Your task to perform on an android device: open app "Grab" (install if not already installed) and enter user name: "interspersion@gmail.com" and password: "aristocrats" Image 0: 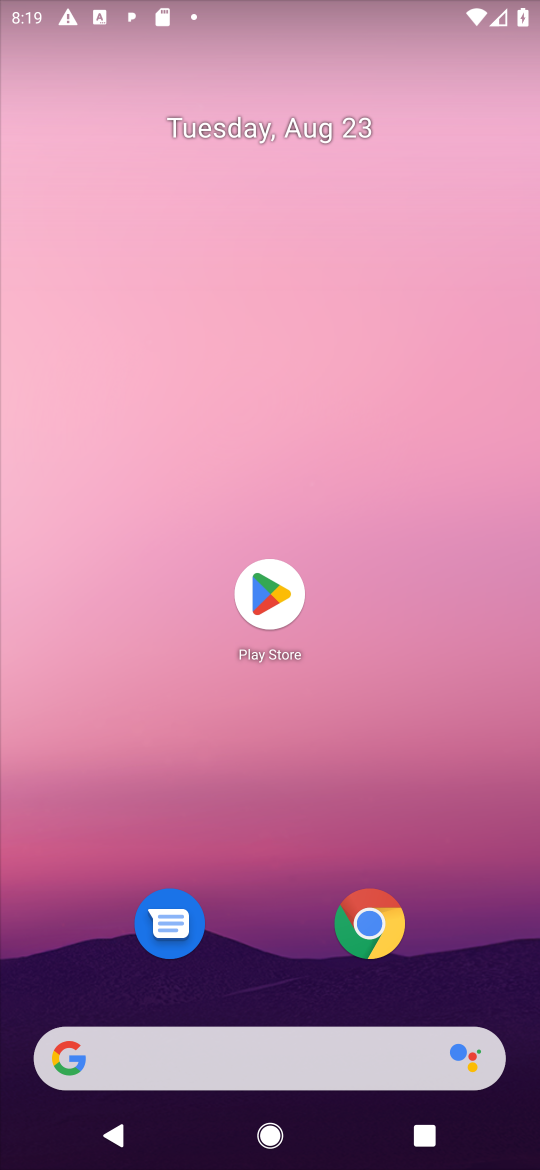
Step 0: click (265, 586)
Your task to perform on an android device: open app "Grab" (install if not already installed) and enter user name: "interspersion@gmail.com" and password: "aristocrats" Image 1: 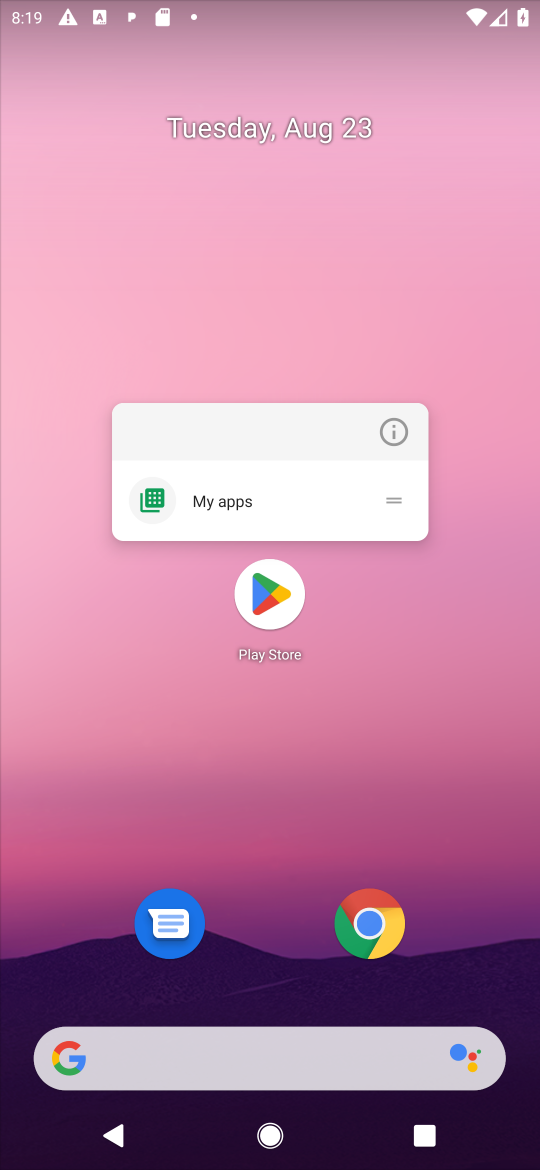
Step 1: click (260, 594)
Your task to perform on an android device: open app "Grab" (install if not already installed) and enter user name: "interspersion@gmail.com" and password: "aristocrats" Image 2: 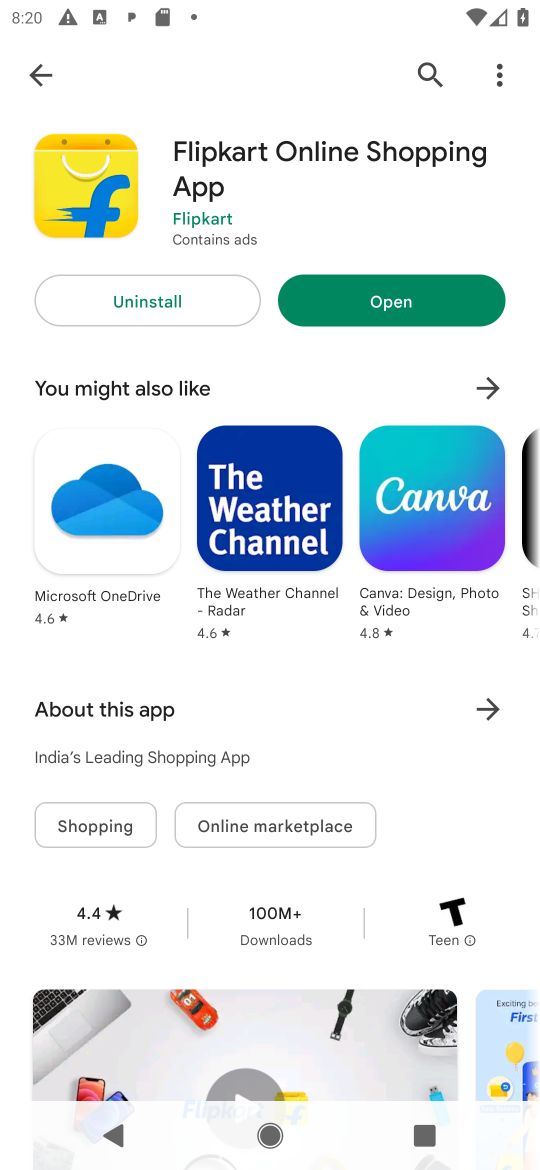
Step 2: click (429, 70)
Your task to perform on an android device: open app "Grab" (install if not already installed) and enter user name: "interspersion@gmail.com" and password: "aristocrats" Image 3: 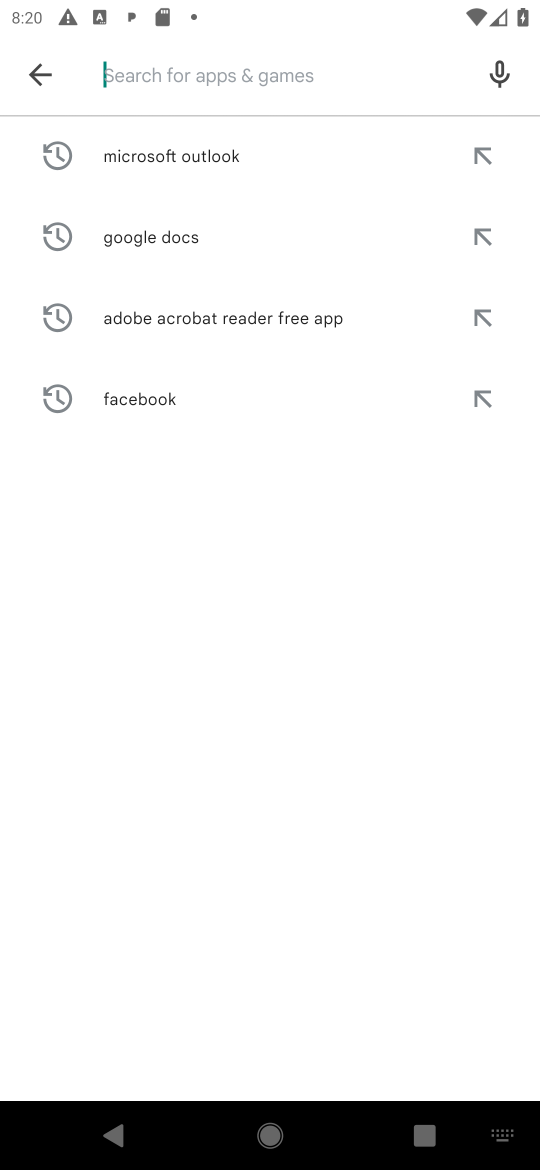
Step 3: type "Grab"
Your task to perform on an android device: open app "Grab" (install if not already installed) and enter user name: "interspersion@gmail.com" and password: "aristocrats" Image 4: 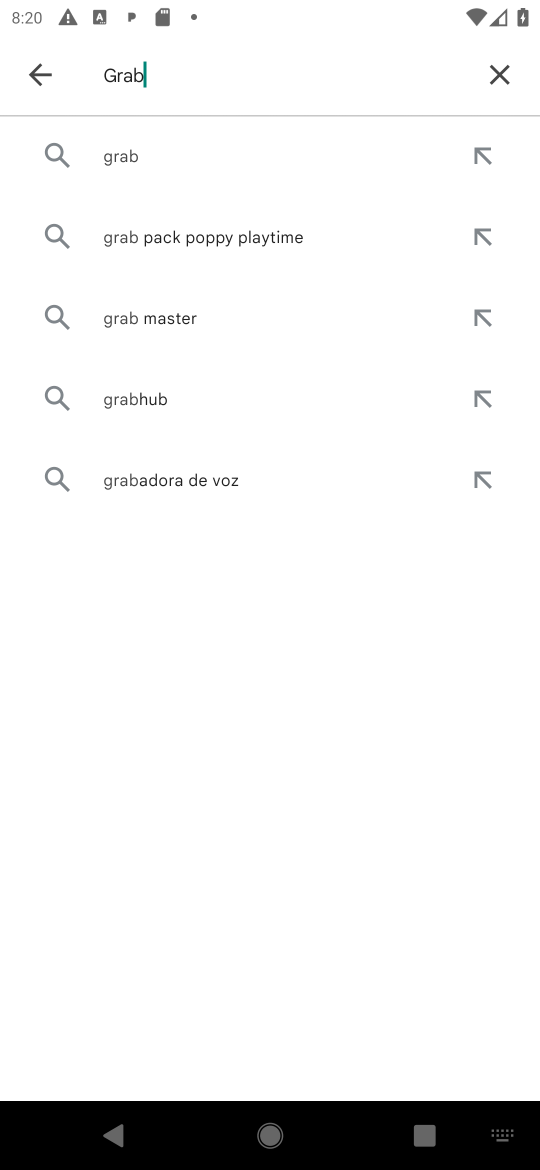
Step 4: click (128, 162)
Your task to perform on an android device: open app "Grab" (install if not already installed) and enter user name: "interspersion@gmail.com" and password: "aristocrats" Image 5: 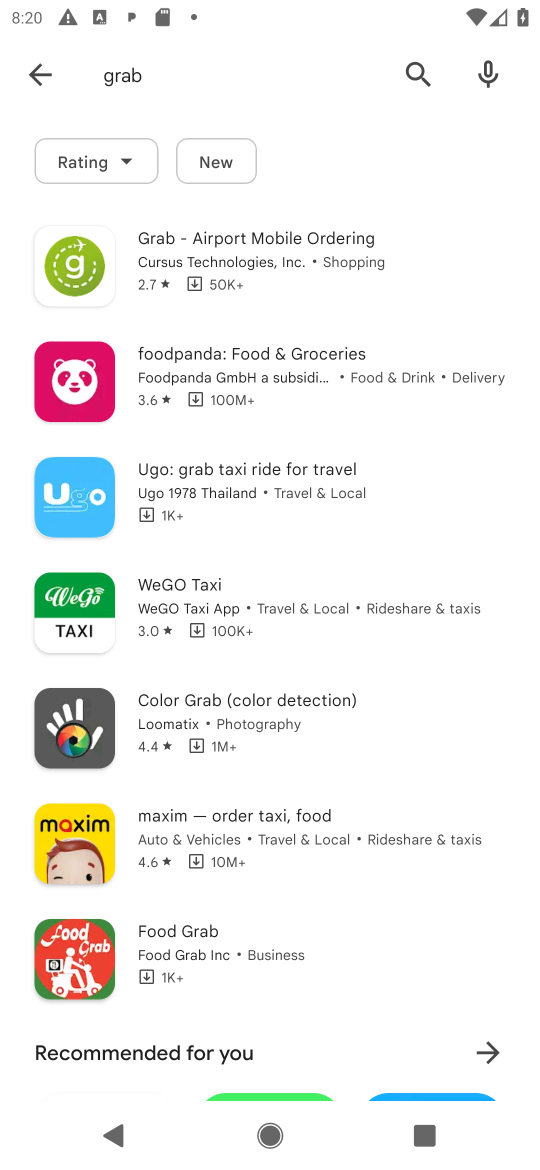
Step 5: click (285, 263)
Your task to perform on an android device: open app "Grab" (install if not already installed) and enter user name: "interspersion@gmail.com" and password: "aristocrats" Image 6: 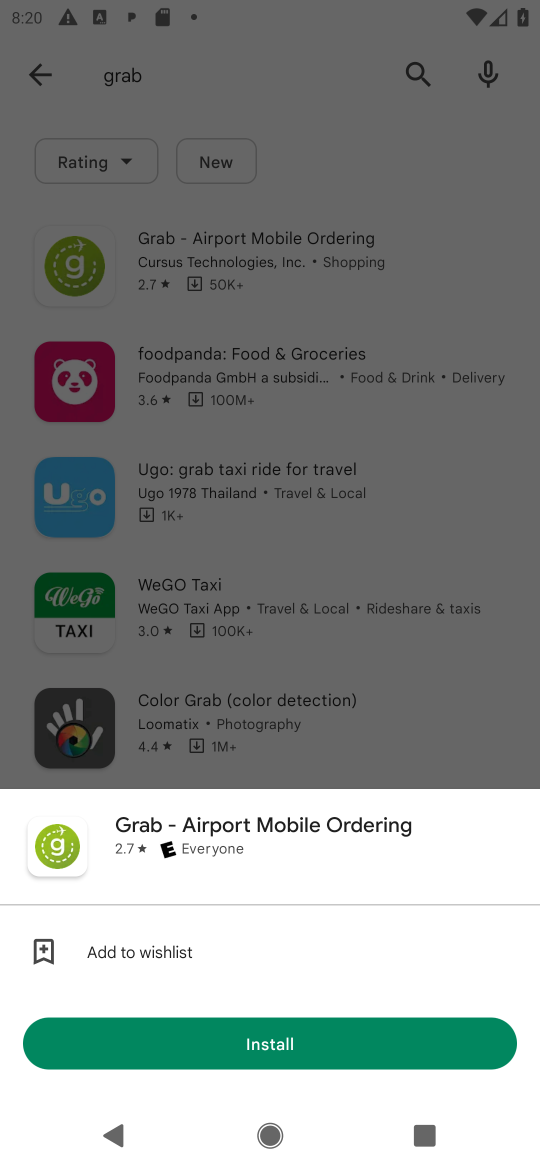
Step 6: click (222, 1059)
Your task to perform on an android device: open app "Grab" (install if not already installed) and enter user name: "interspersion@gmail.com" and password: "aristocrats" Image 7: 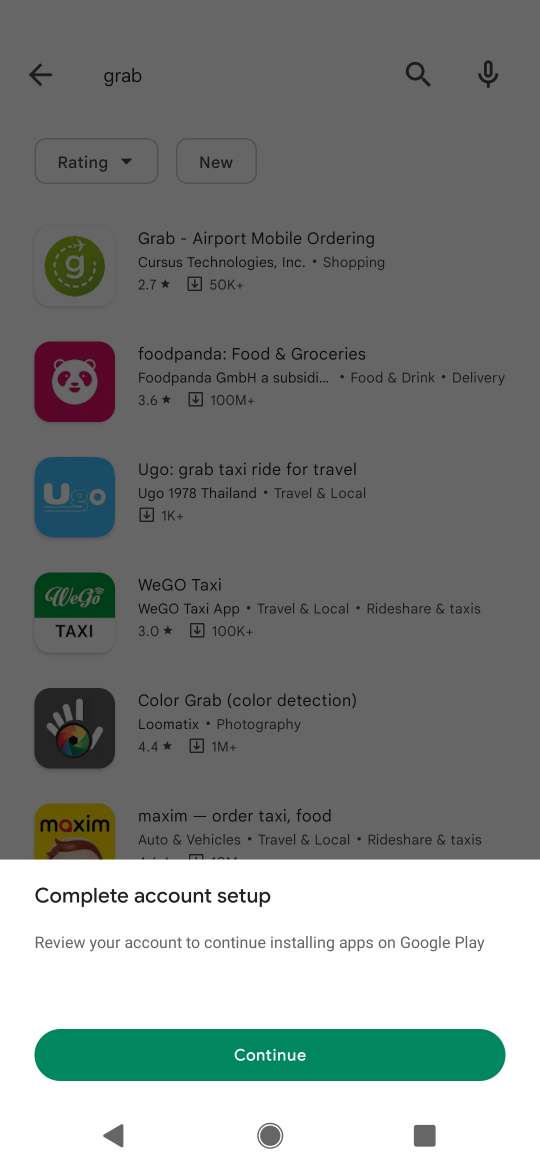
Step 7: click (246, 1044)
Your task to perform on an android device: open app "Grab" (install if not already installed) and enter user name: "interspersion@gmail.com" and password: "aristocrats" Image 8: 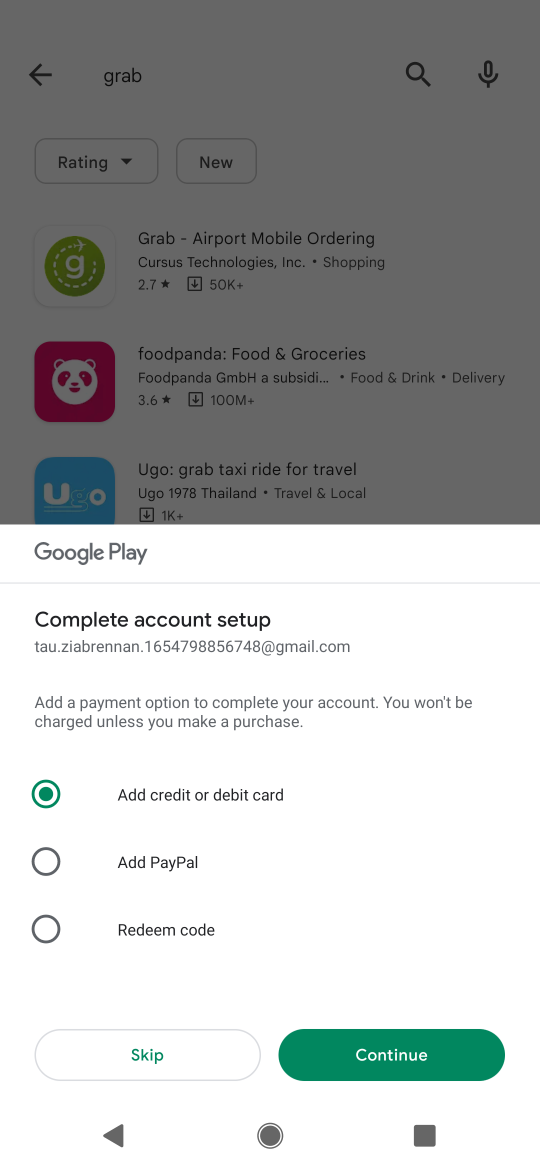
Step 8: click (171, 1055)
Your task to perform on an android device: open app "Grab" (install if not already installed) and enter user name: "interspersion@gmail.com" and password: "aristocrats" Image 9: 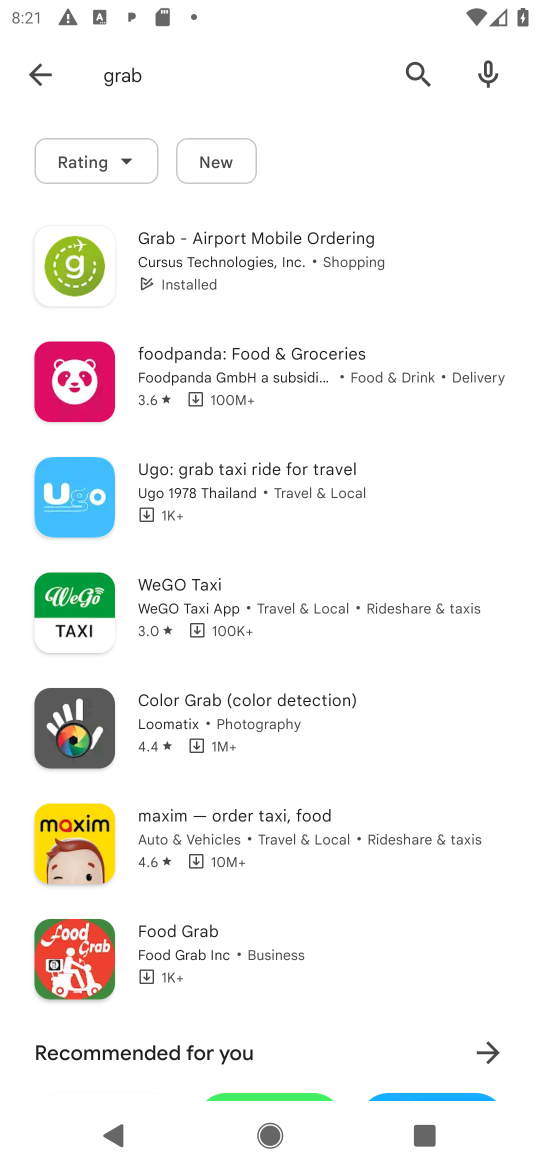
Step 9: click (207, 264)
Your task to perform on an android device: open app "Grab" (install if not already installed) and enter user name: "interspersion@gmail.com" and password: "aristocrats" Image 10: 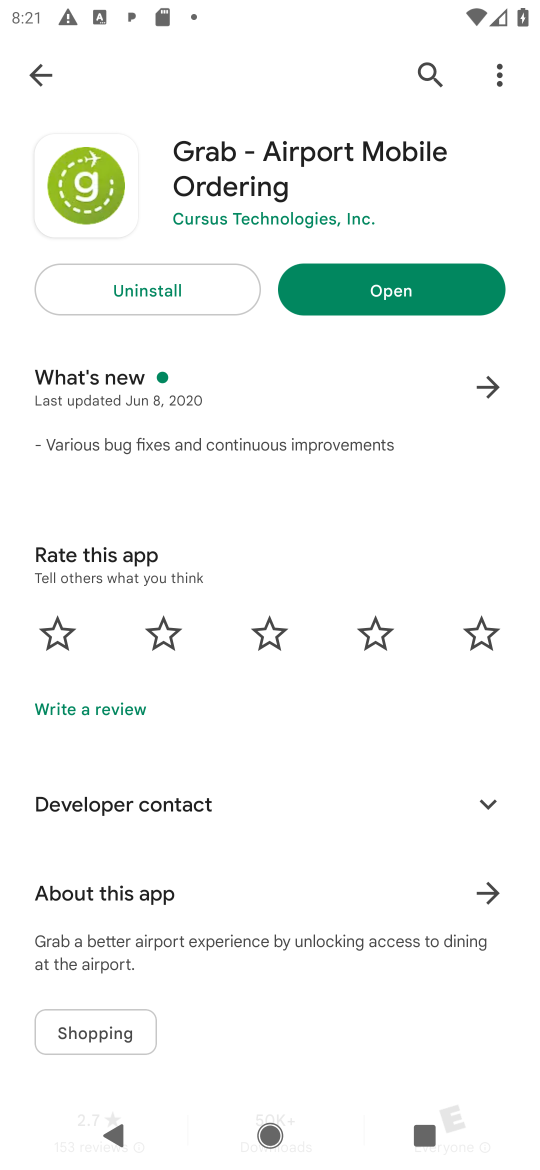
Step 10: click (416, 272)
Your task to perform on an android device: open app "Grab" (install if not already installed) and enter user name: "interspersion@gmail.com" and password: "aristocrats" Image 11: 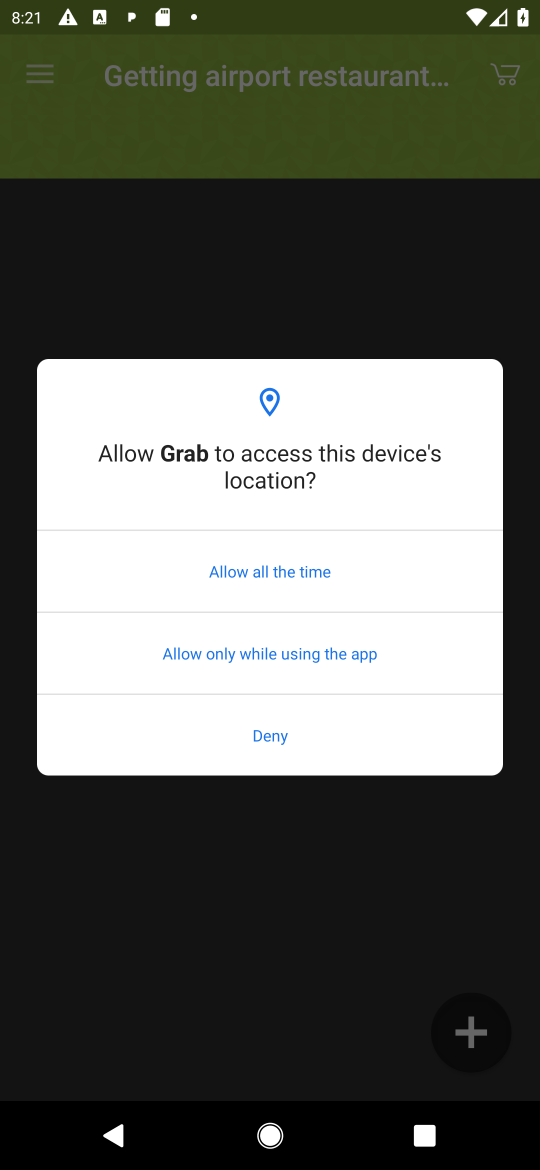
Step 11: click (317, 646)
Your task to perform on an android device: open app "Grab" (install if not already installed) and enter user name: "interspersion@gmail.com" and password: "aristocrats" Image 12: 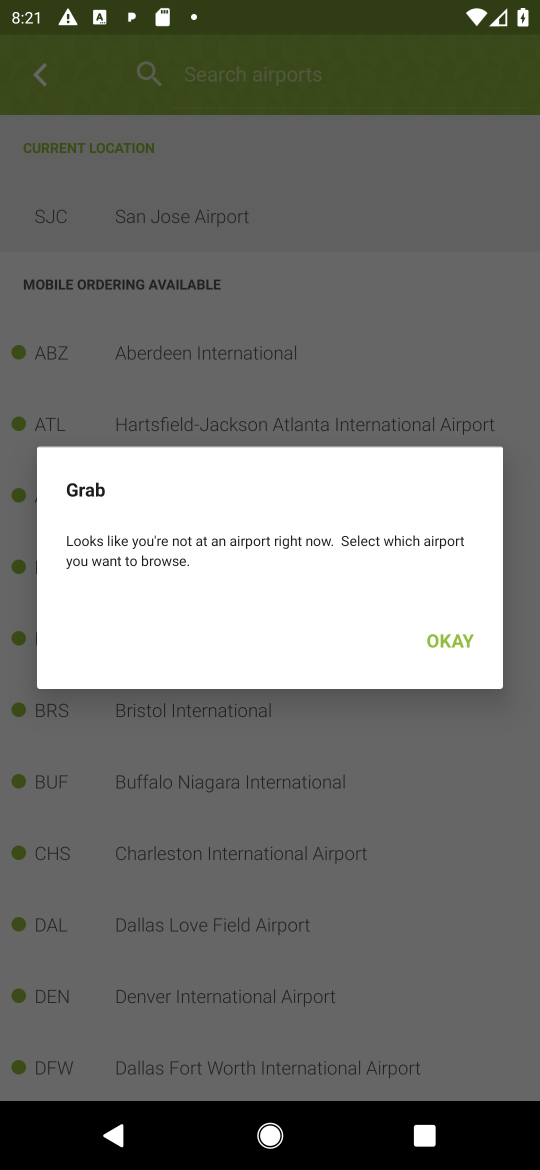
Step 12: task complete